Your task to perform on an android device: Open Chrome and go to settings Image 0: 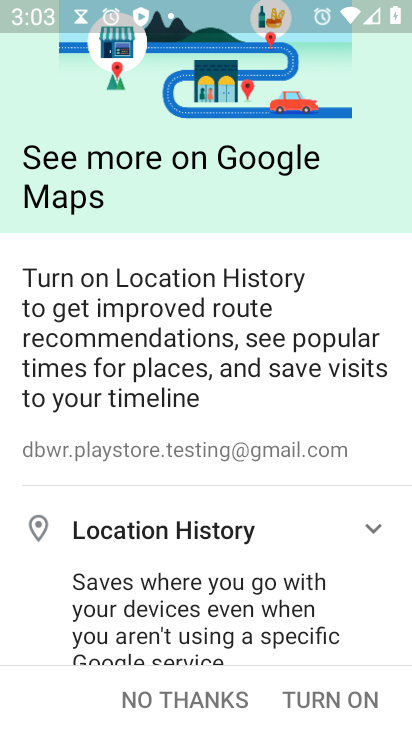
Step 0: click (311, 691)
Your task to perform on an android device: Open Chrome and go to settings Image 1: 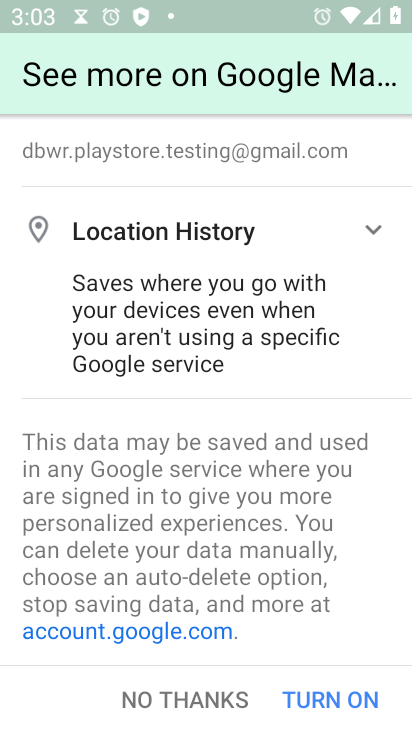
Step 1: click (311, 691)
Your task to perform on an android device: Open Chrome and go to settings Image 2: 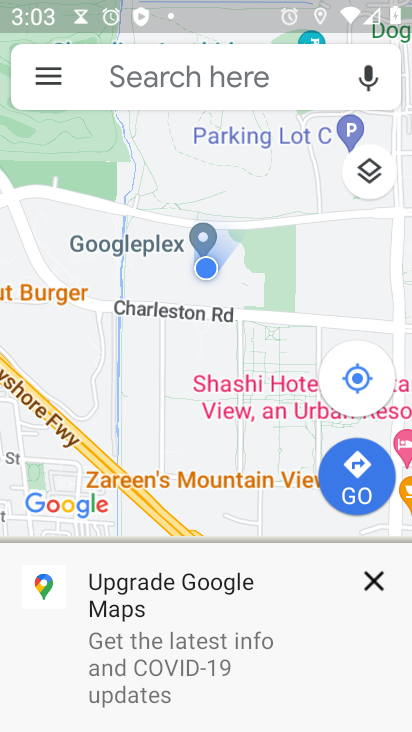
Step 2: press back button
Your task to perform on an android device: Open Chrome and go to settings Image 3: 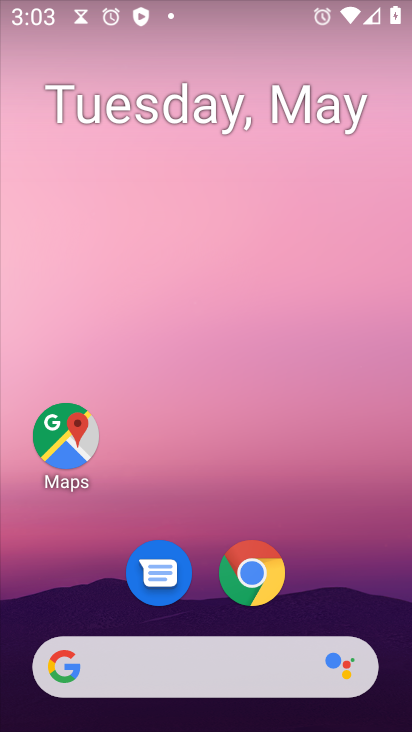
Step 3: drag from (328, 551) to (287, 141)
Your task to perform on an android device: Open Chrome and go to settings Image 4: 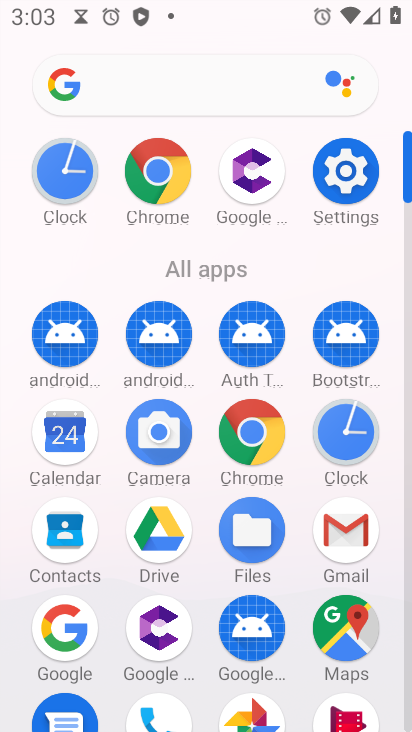
Step 4: click (150, 166)
Your task to perform on an android device: Open Chrome and go to settings Image 5: 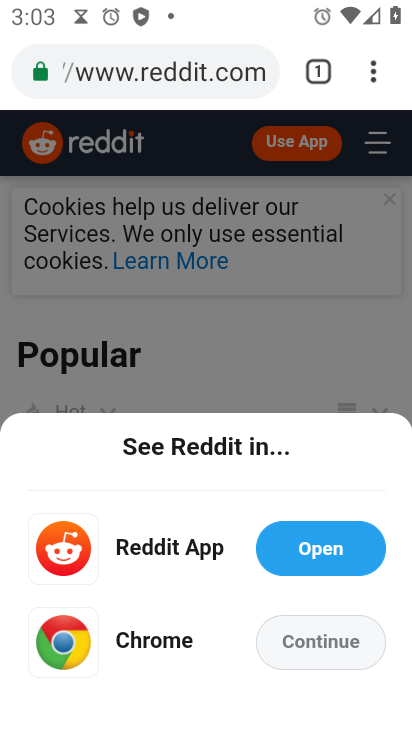
Step 5: task complete